Your task to perform on an android device: open app "Gmail" (install if not already installed) and go to login screen Image 0: 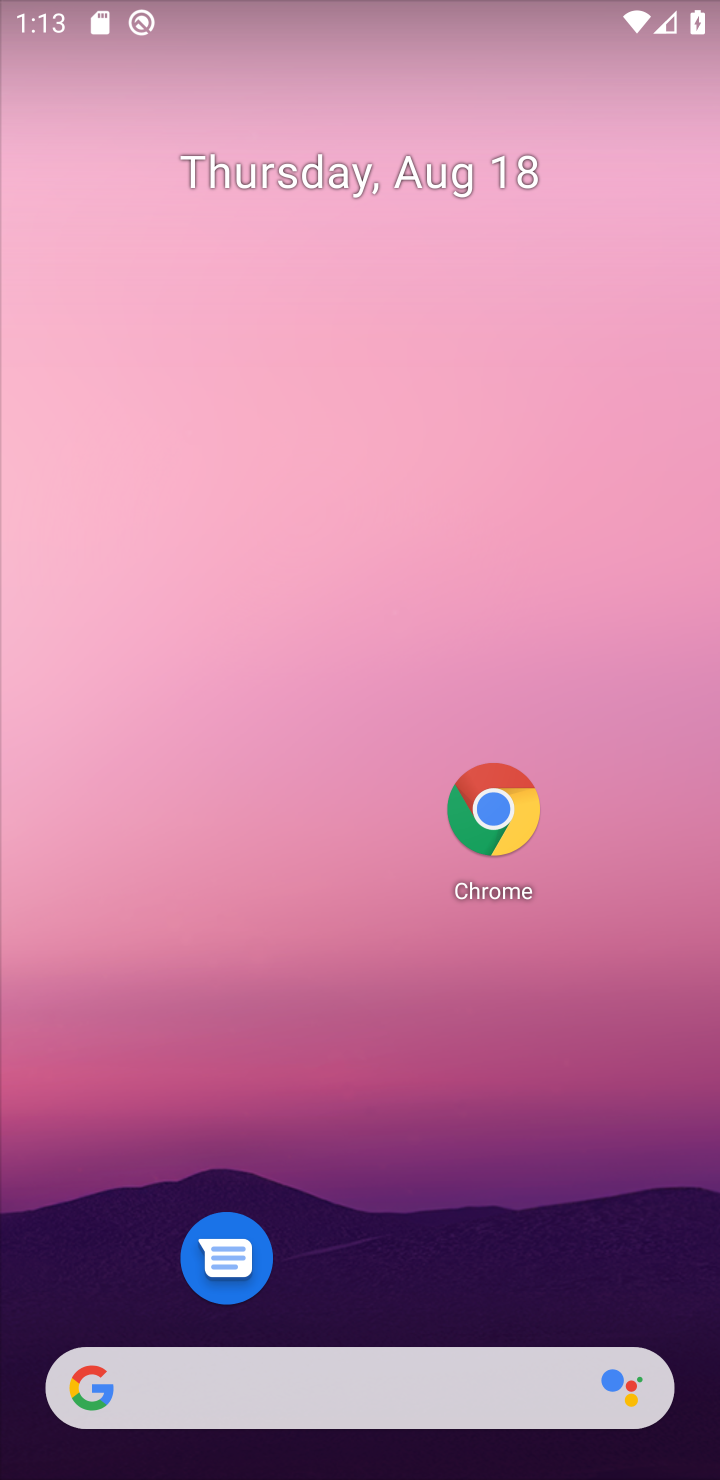
Step 0: drag from (296, 1316) to (299, 321)
Your task to perform on an android device: open app "Gmail" (install if not already installed) and go to login screen Image 1: 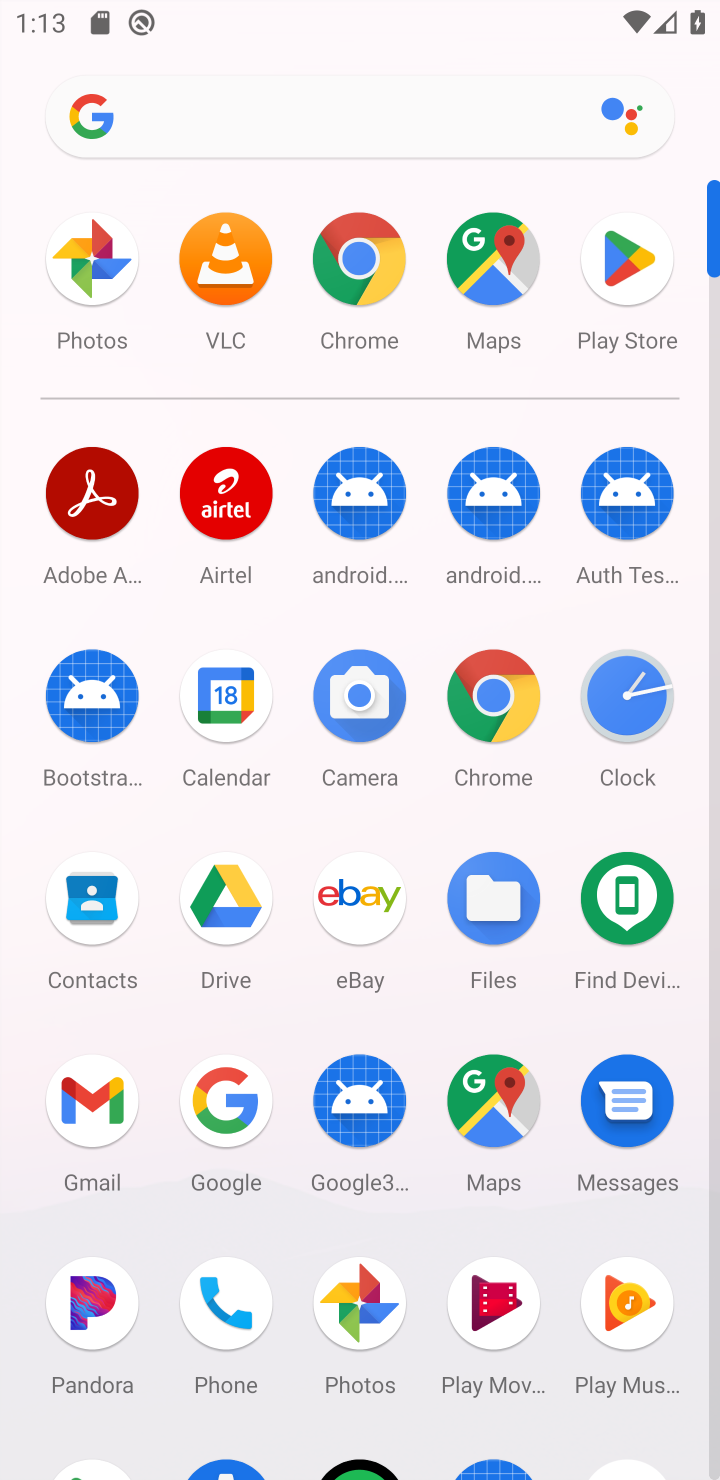
Step 1: click (614, 255)
Your task to perform on an android device: open app "Gmail" (install if not already installed) and go to login screen Image 2: 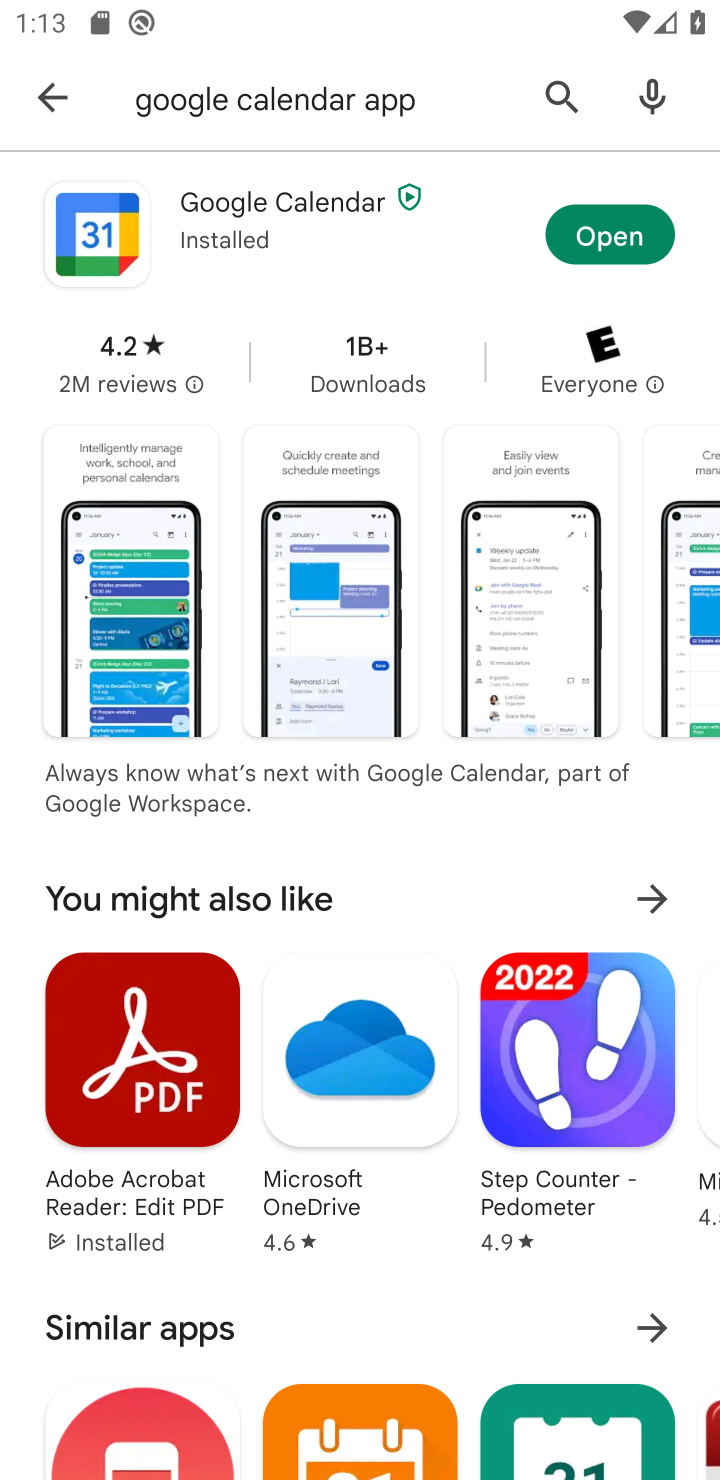
Step 2: click (37, 90)
Your task to perform on an android device: open app "Gmail" (install if not already installed) and go to login screen Image 3: 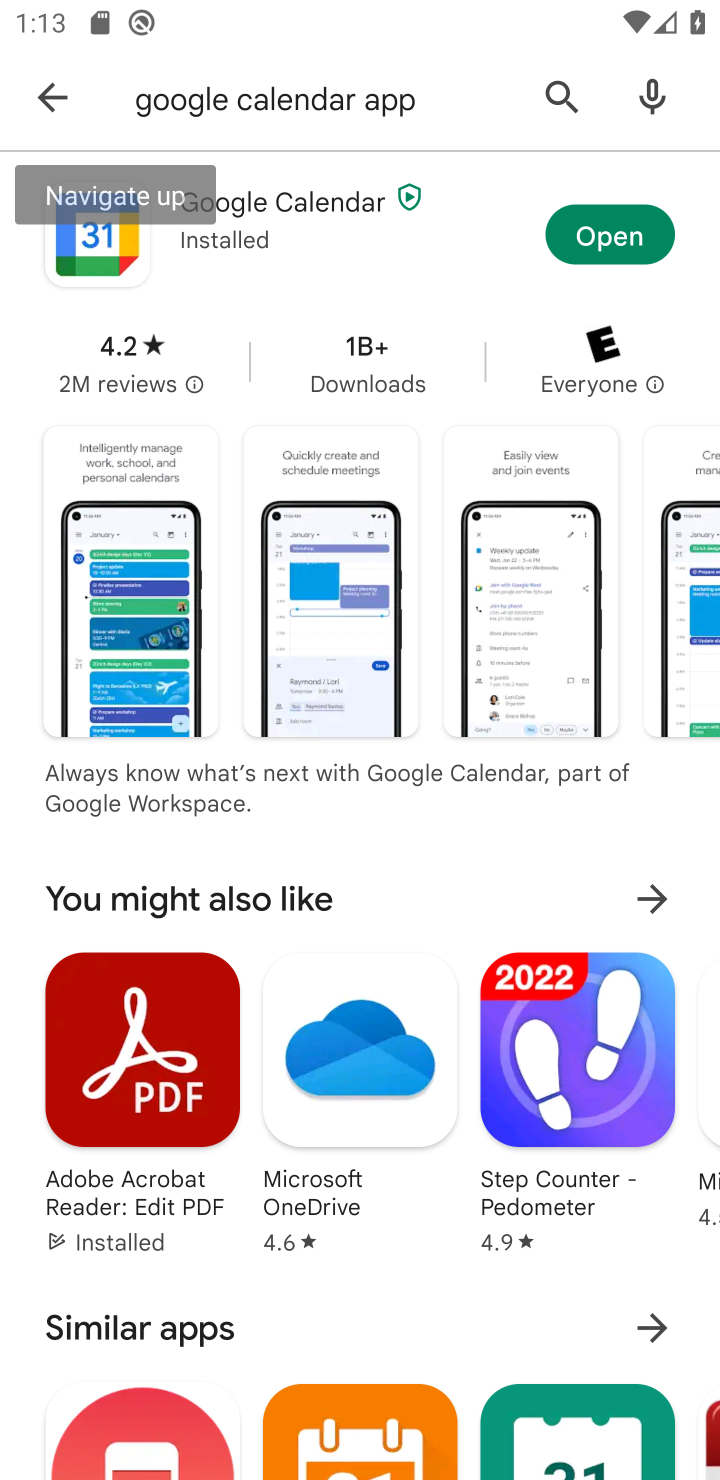
Step 3: click (77, 81)
Your task to perform on an android device: open app "Gmail" (install if not already installed) and go to login screen Image 4: 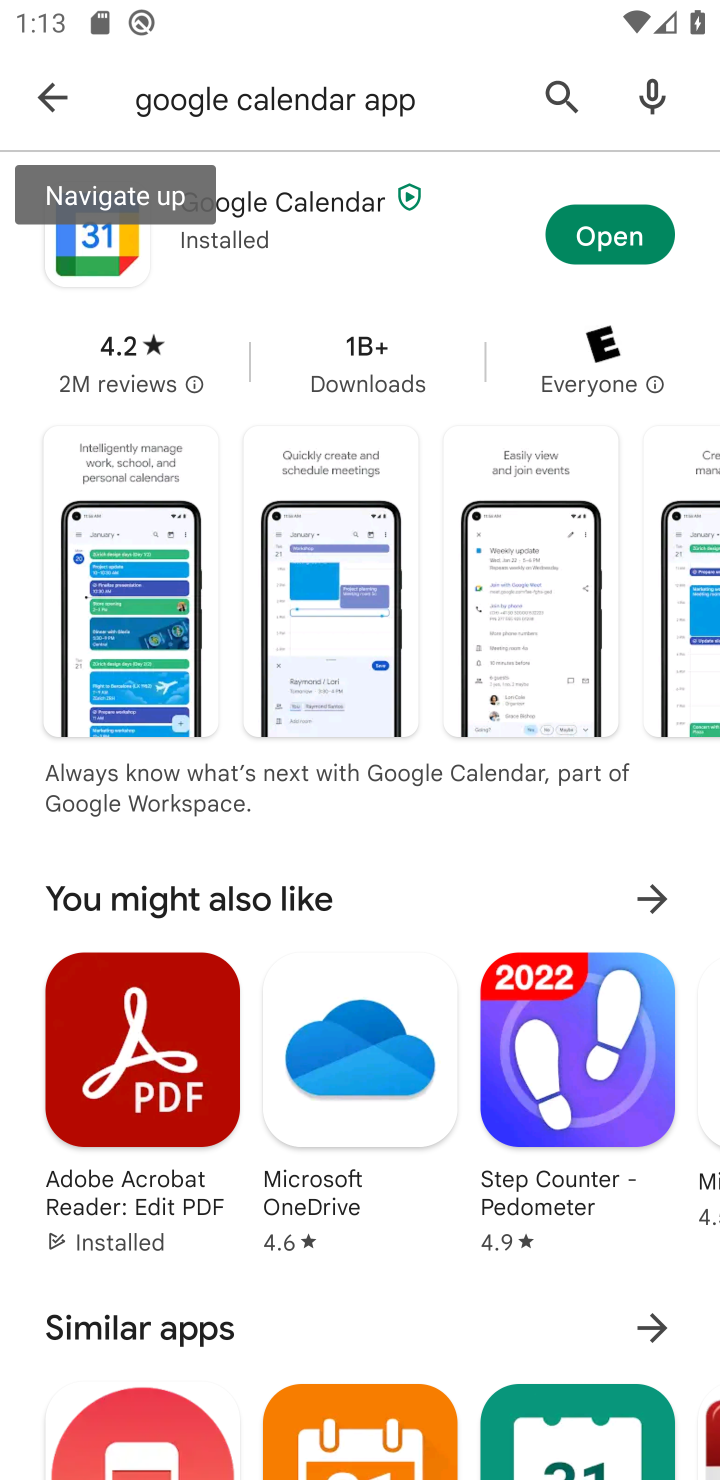
Step 4: click (538, 91)
Your task to perform on an android device: open app "Gmail" (install if not already installed) and go to login screen Image 5: 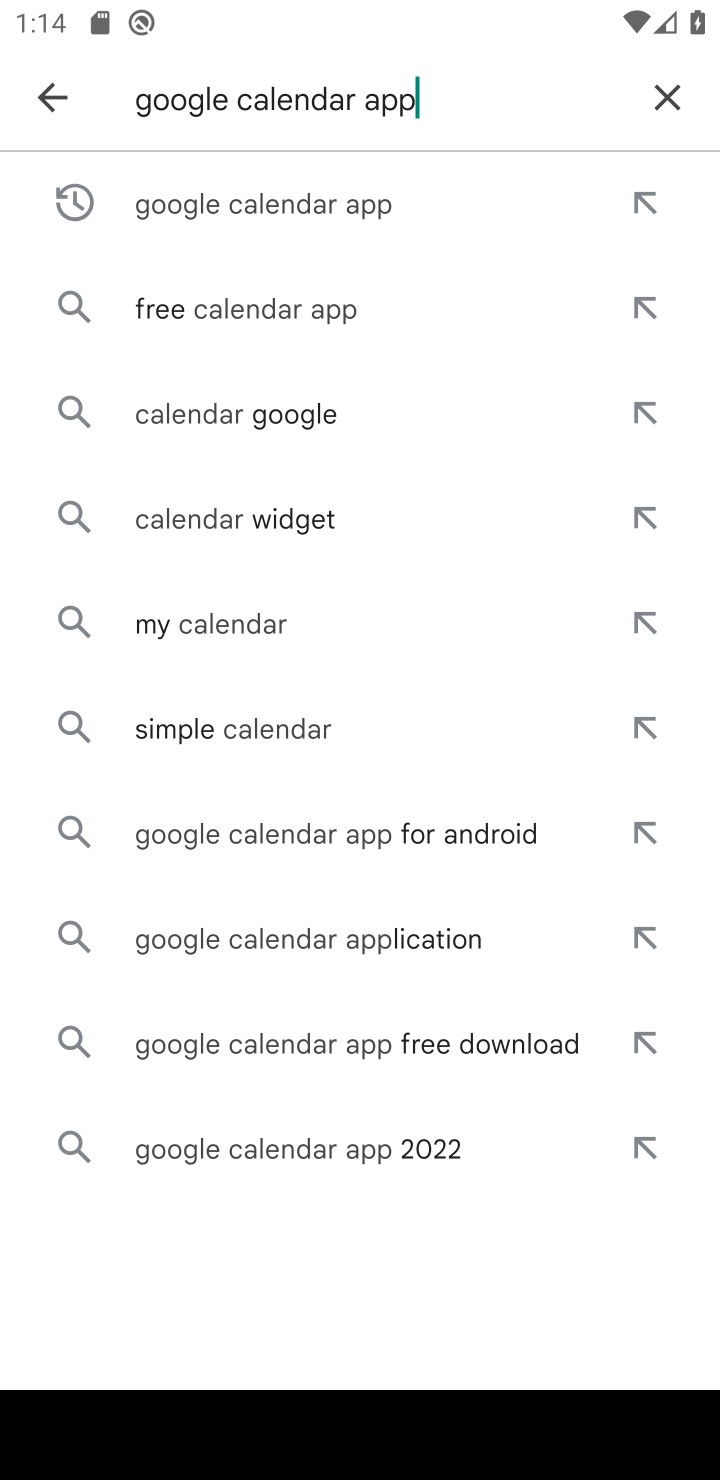
Step 5: click (677, 91)
Your task to perform on an android device: open app "Gmail" (install if not already installed) and go to login screen Image 6: 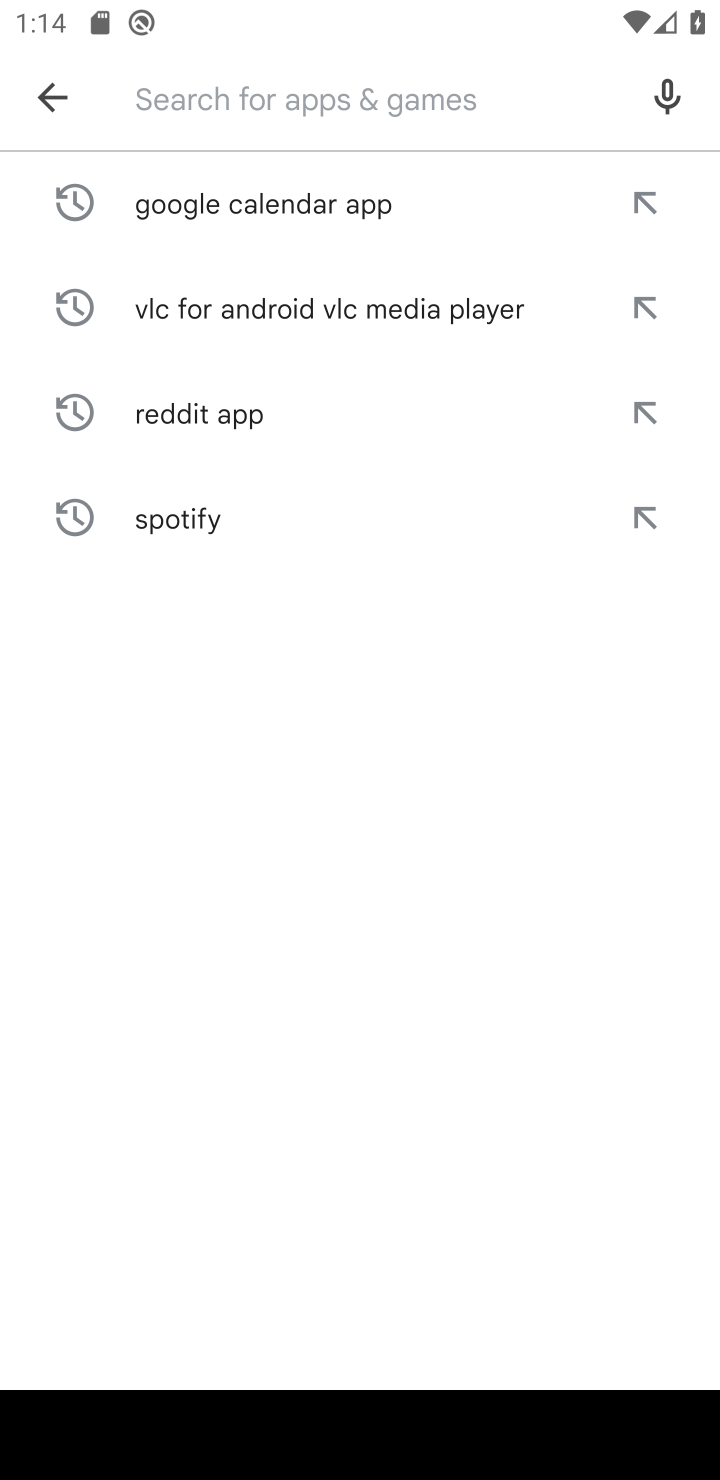
Step 6: click (293, 92)
Your task to perform on an android device: open app "Gmail" (install if not already installed) and go to login screen Image 7: 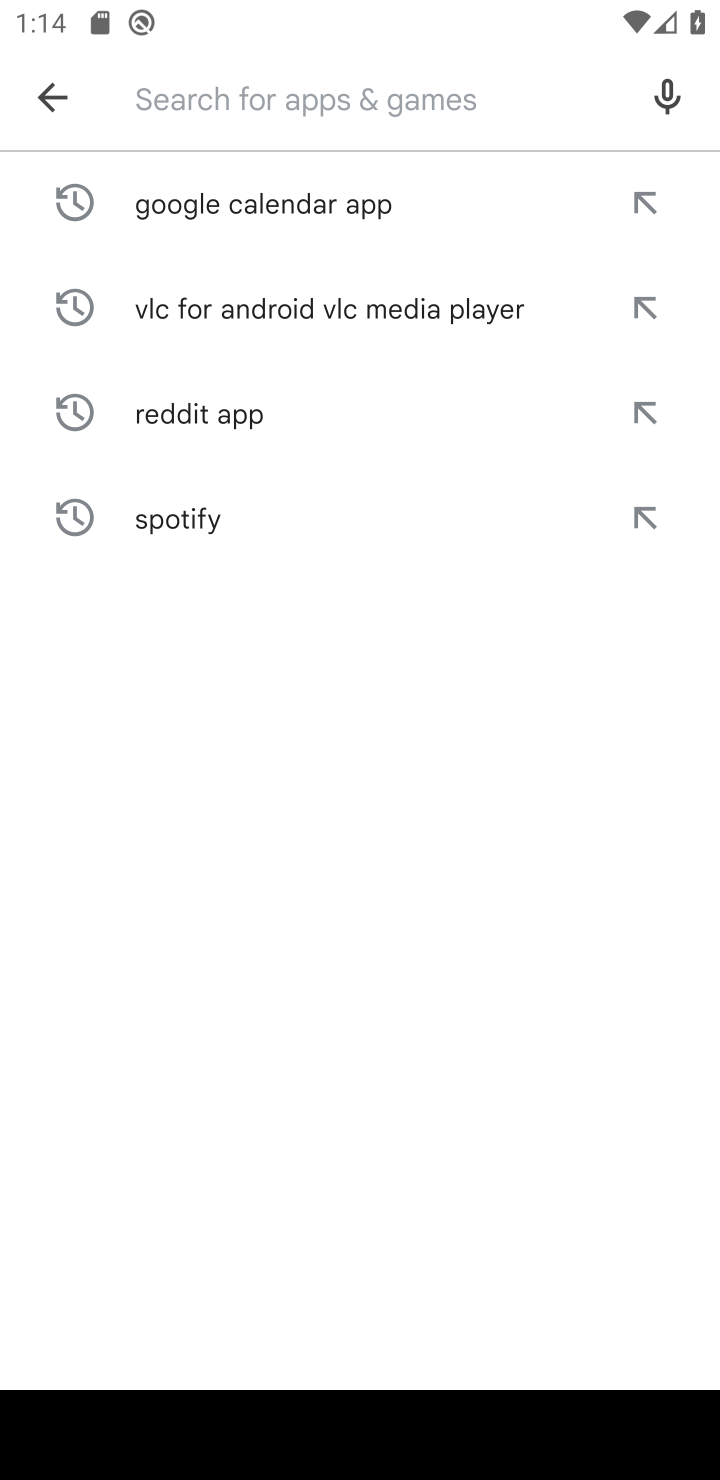
Step 7: type "gmail "
Your task to perform on an android device: open app "Gmail" (install if not already installed) and go to login screen Image 8: 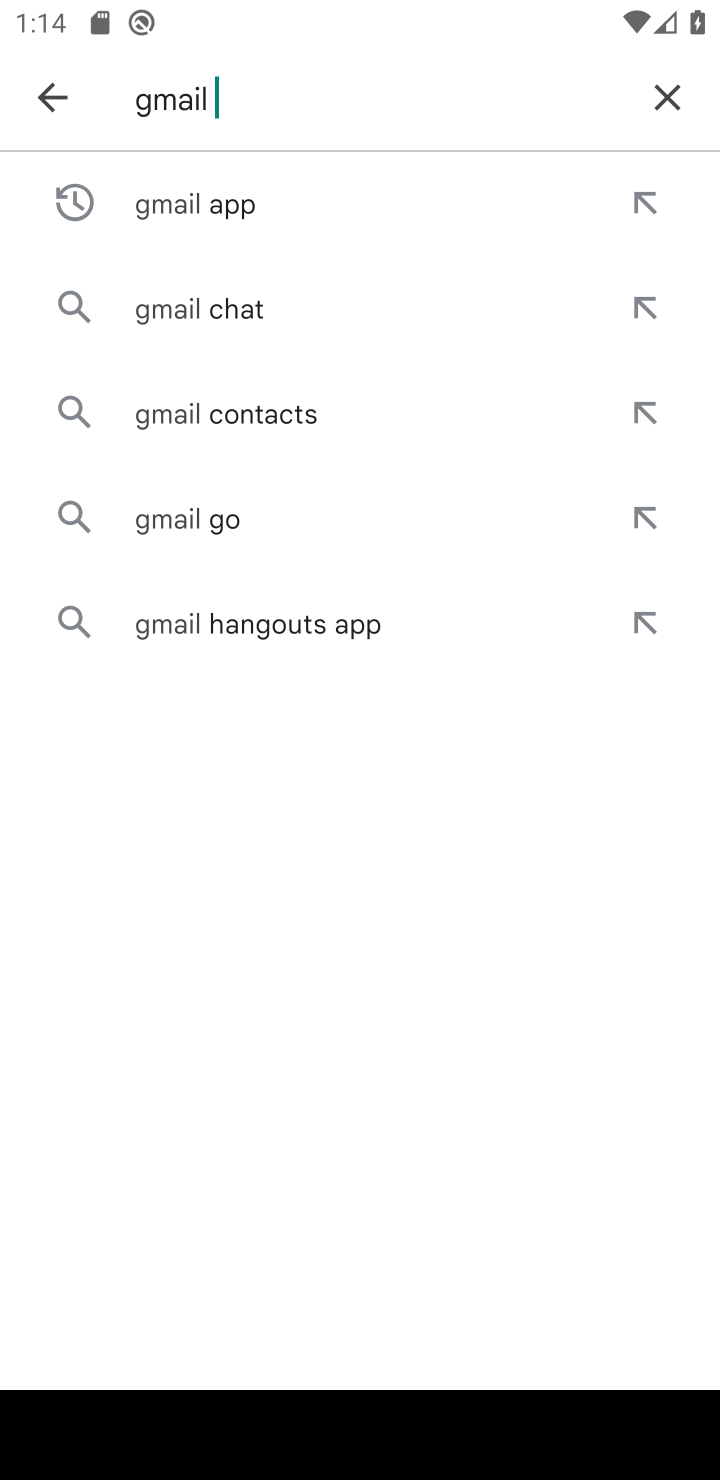
Step 8: click (224, 198)
Your task to perform on an android device: open app "Gmail" (install if not already installed) and go to login screen Image 9: 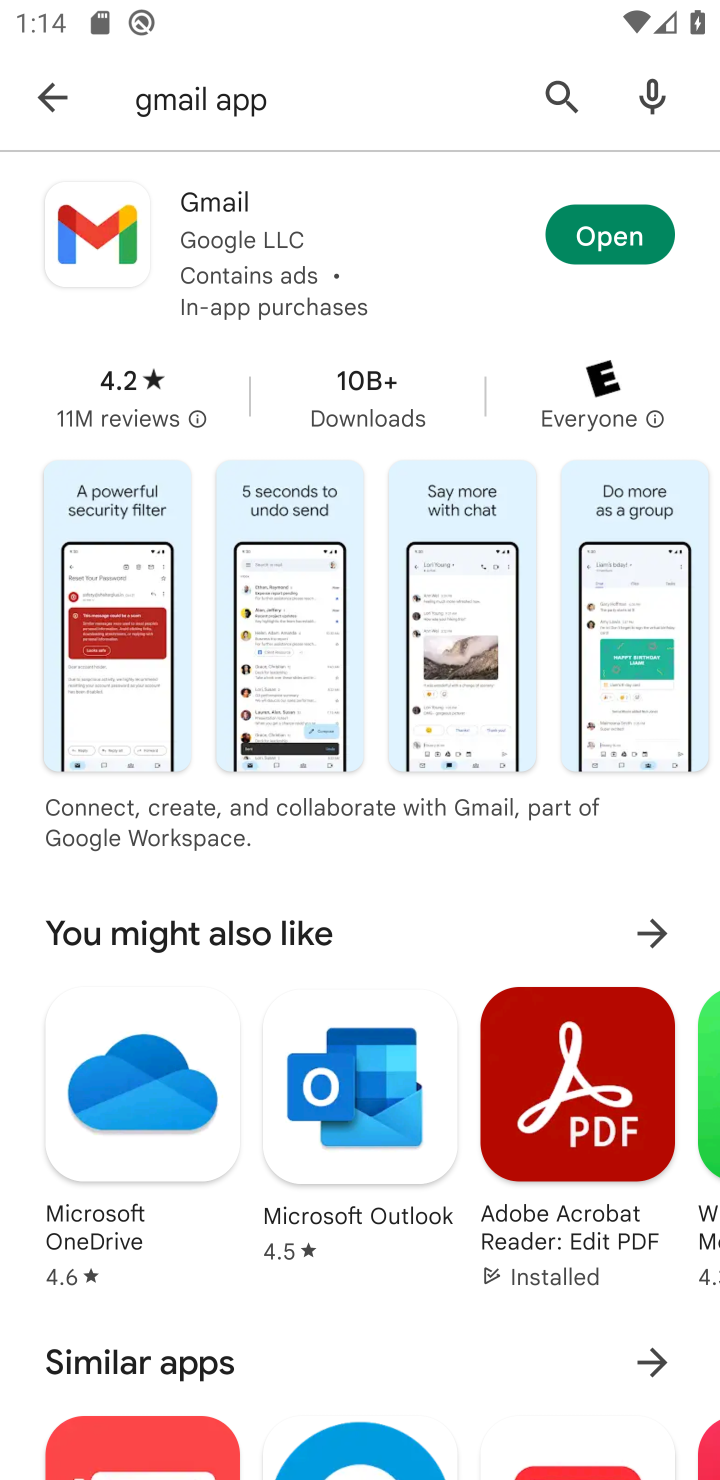
Step 9: click (564, 229)
Your task to perform on an android device: open app "Gmail" (install if not already installed) and go to login screen Image 10: 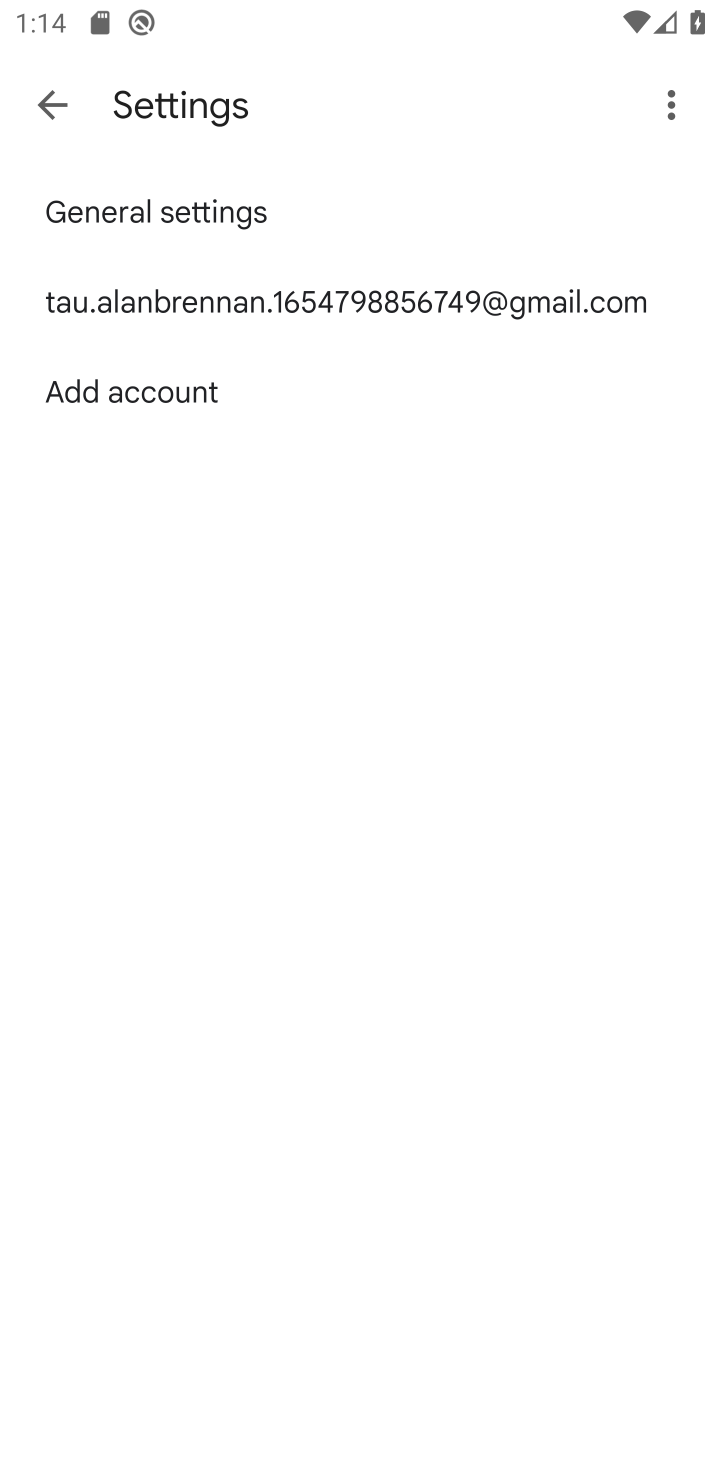
Step 10: click (53, 102)
Your task to perform on an android device: open app "Gmail" (install if not already installed) and go to login screen Image 11: 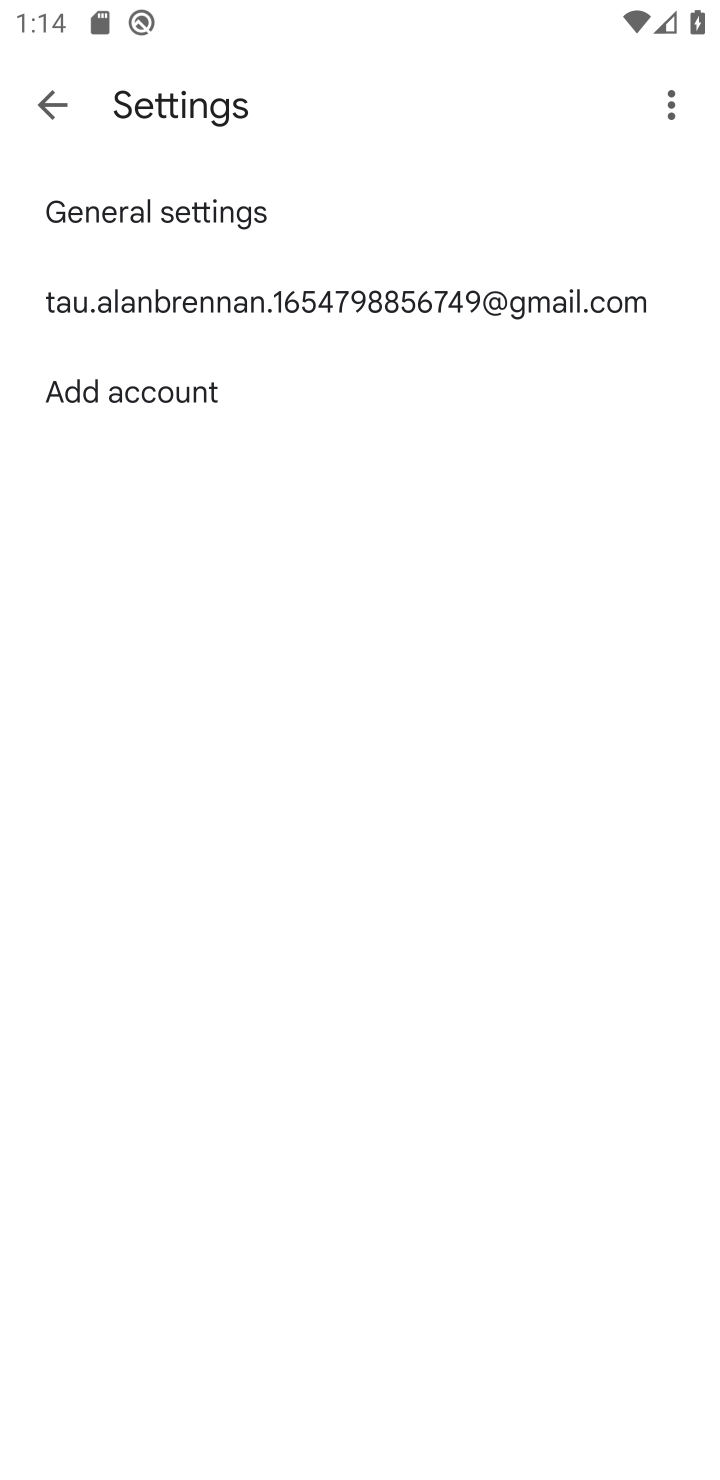
Step 11: click (45, 98)
Your task to perform on an android device: open app "Gmail" (install if not already installed) and go to login screen Image 12: 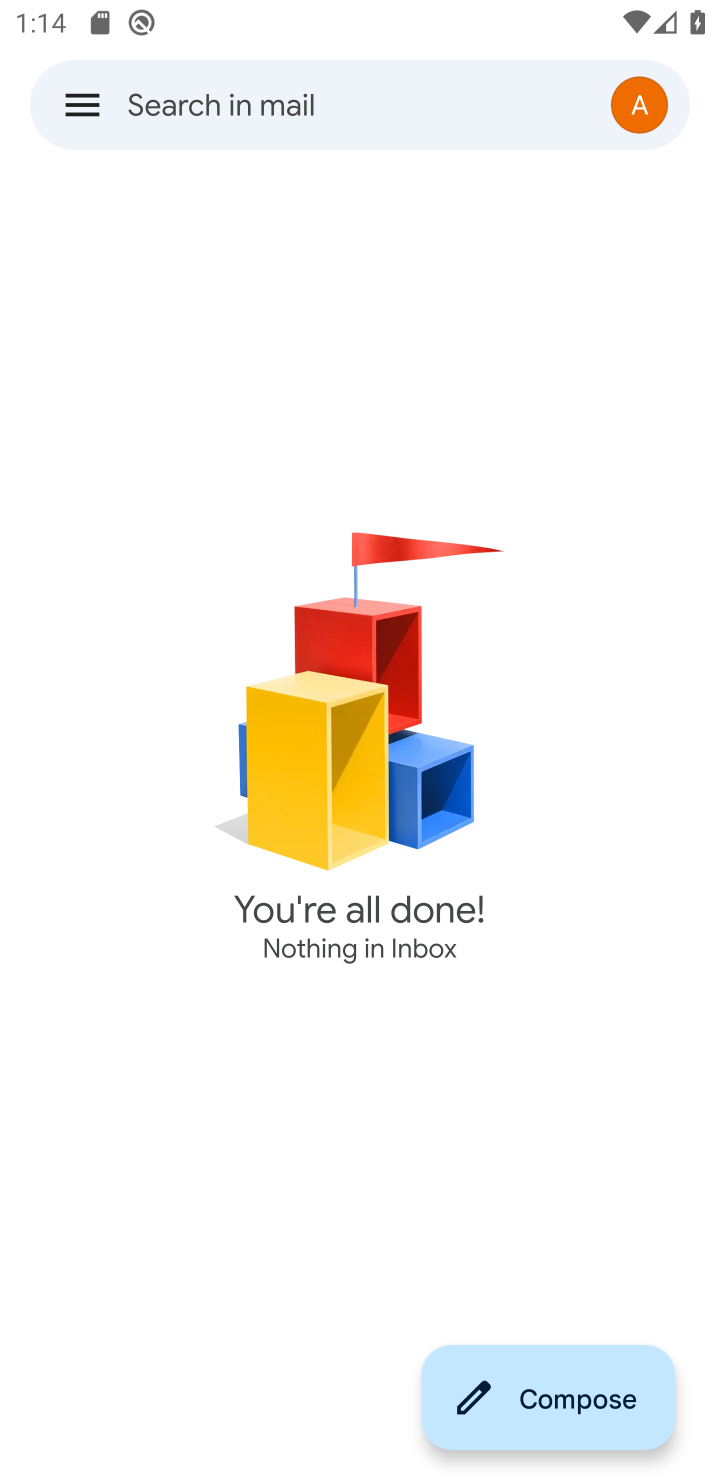
Step 12: task complete